Your task to perform on an android device: find snoozed emails in the gmail app Image 0: 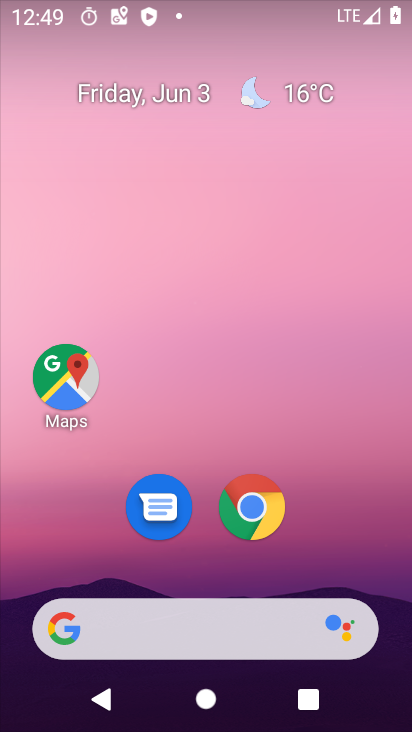
Step 0: drag from (402, 631) to (327, 55)
Your task to perform on an android device: find snoozed emails in the gmail app Image 1: 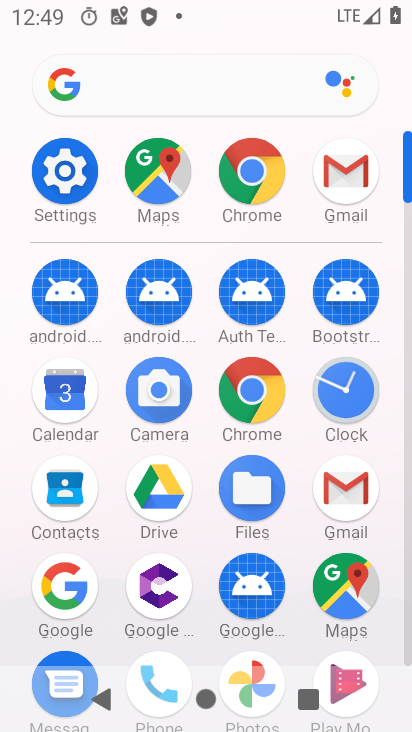
Step 1: click (360, 489)
Your task to perform on an android device: find snoozed emails in the gmail app Image 2: 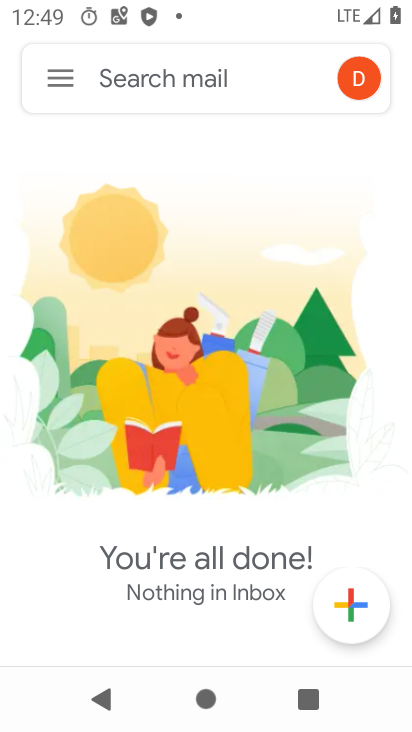
Step 2: click (77, 81)
Your task to perform on an android device: find snoozed emails in the gmail app Image 3: 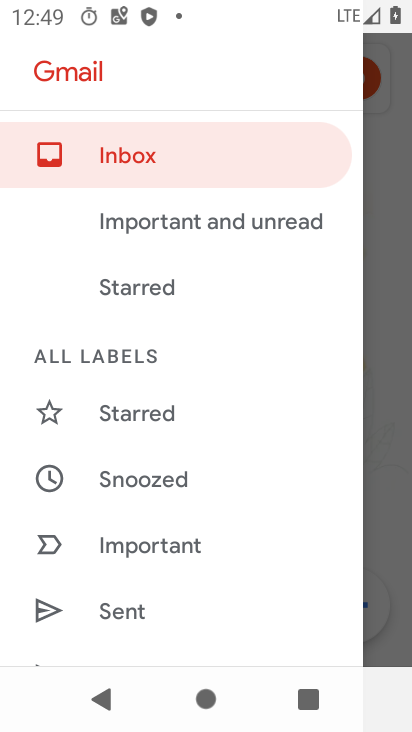
Step 3: click (164, 479)
Your task to perform on an android device: find snoozed emails in the gmail app Image 4: 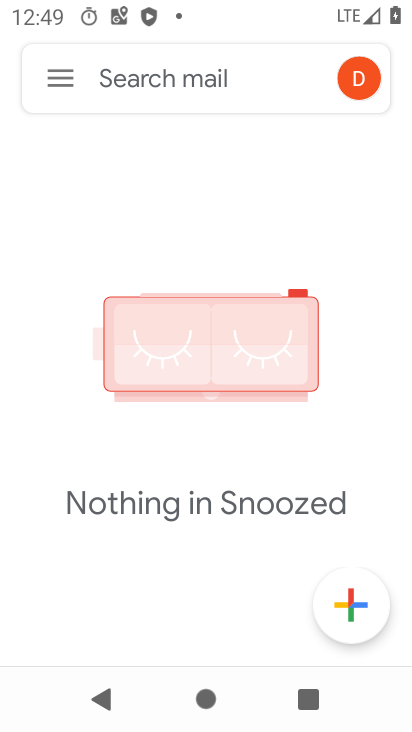
Step 4: task complete